Your task to perform on an android device: change keyboard looks Image 0: 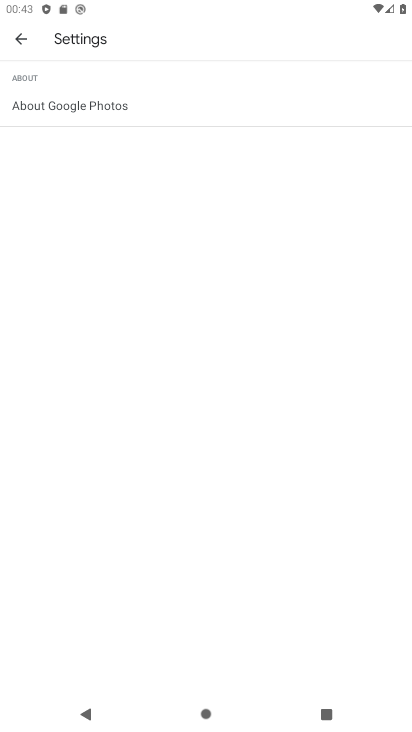
Step 0: press home button
Your task to perform on an android device: change keyboard looks Image 1: 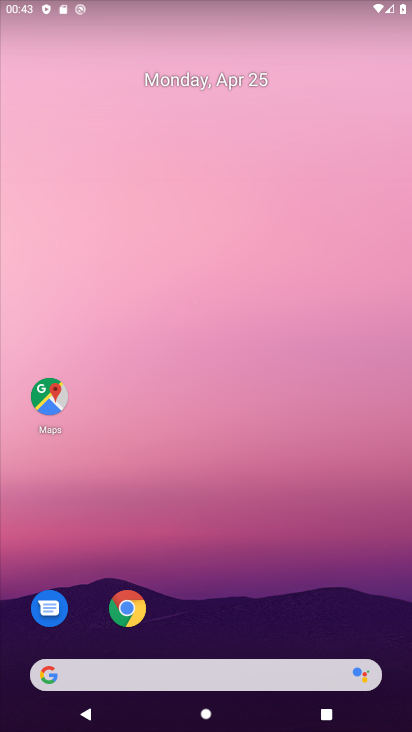
Step 1: drag from (240, 619) to (189, 96)
Your task to perform on an android device: change keyboard looks Image 2: 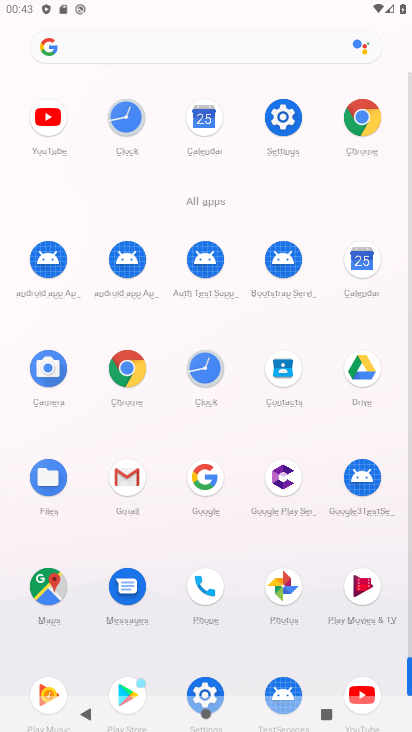
Step 2: click (292, 131)
Your task to perform on an android device: change keyboard looks Image 3: 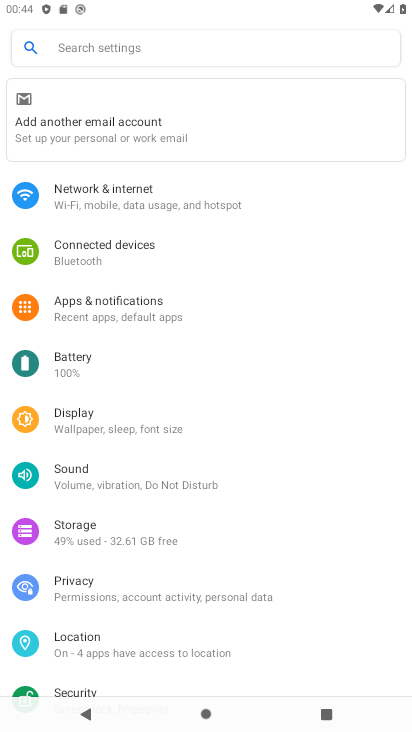
Step 3: drag from (189, 662) to (177, 148)
Your task to perform on an android device: change keyboard looks Image 4: 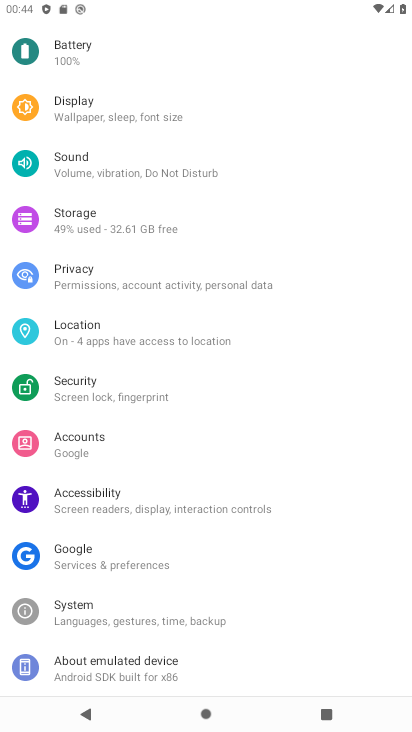
Step 4: drag from (220, 610) to (215, 162)
Your task to perform on an android device: change keyboard looks Image 5: 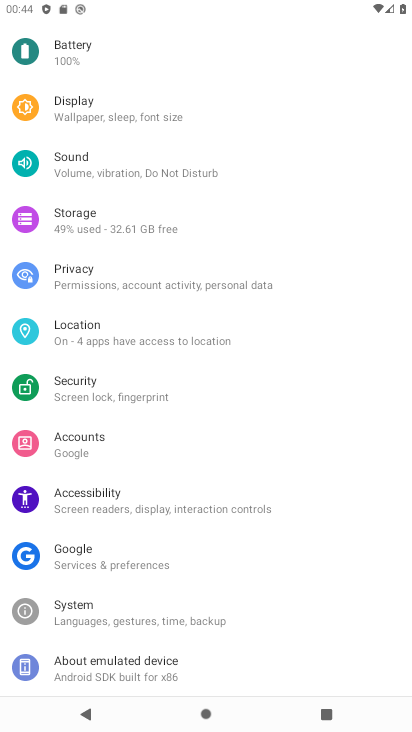
Step 5: click (178, 618)
Your task to perform on an android device: change keyboard looks Image 6: 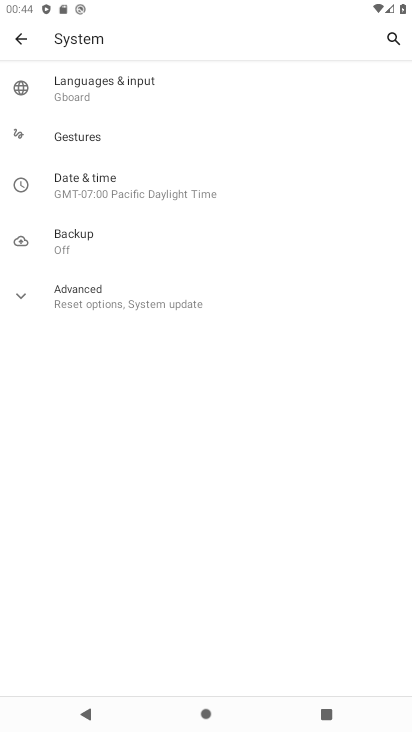
Step 6: click (196, 96)
Your task to perform on an android device: change keyboard looks Image 7: 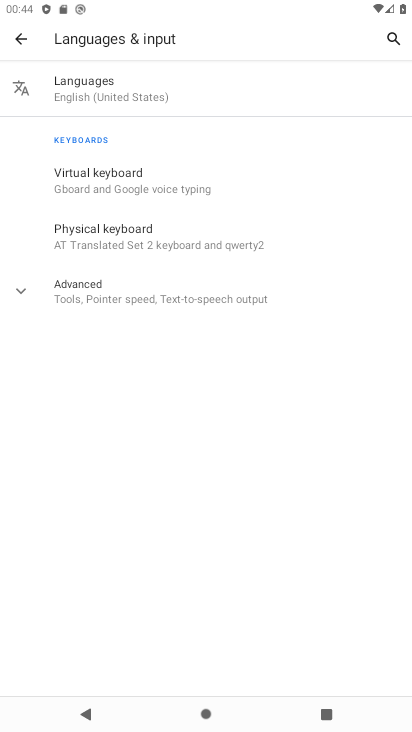
Step 7: click (217, 191)
Your task to perform on an android device: change keyboard looks Image 8: 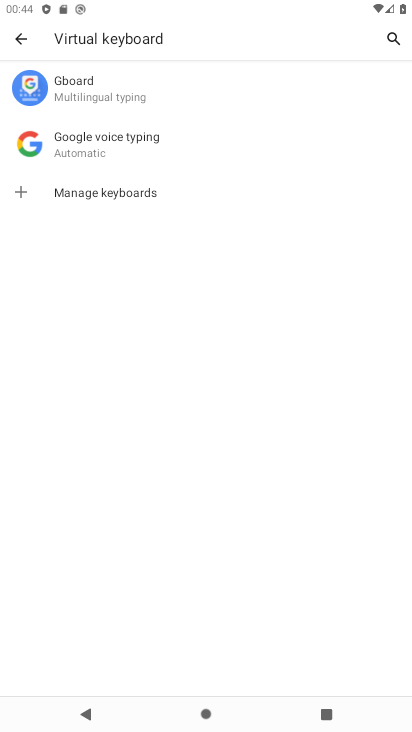
Step 8: click (178, 89)
Your task to perform on an android device: change keyboard looks Image 9: 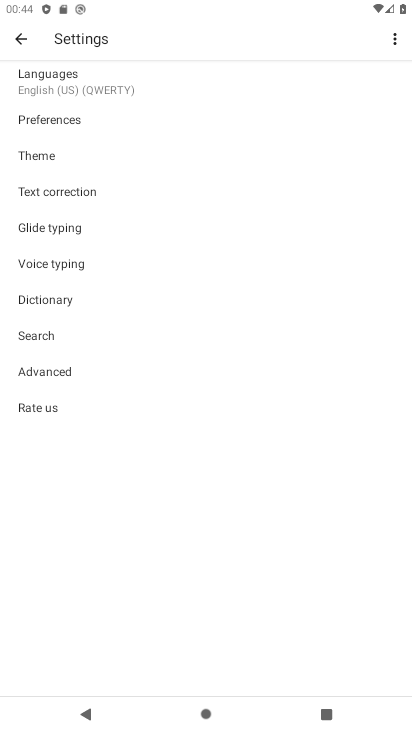
Step 9: click (133, 165)
Your task to perform on an android device: change keyboard looks Image 10: 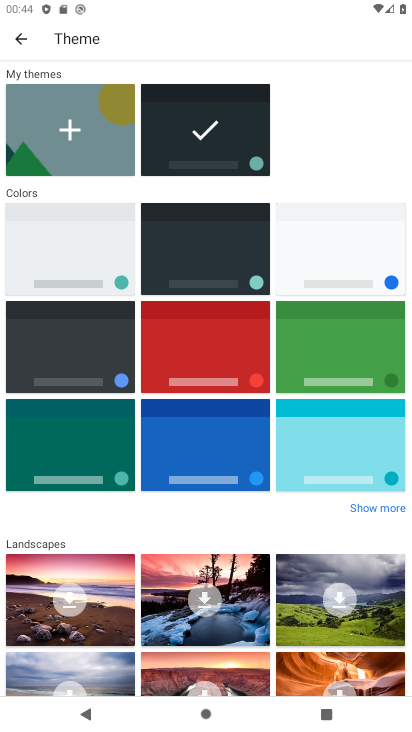
Step 10: click (181, 244)
Your task to perform on an android device: change keyboard looks Image 11: 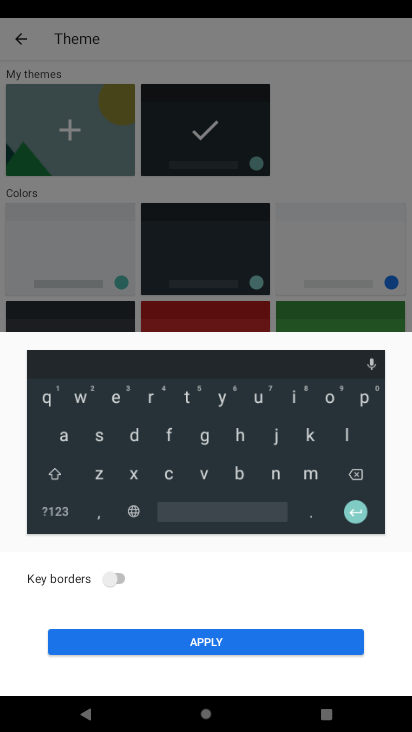
Step 11: click (235, 645)
Your task to perform on an android device: change keyboard looks Image 12: 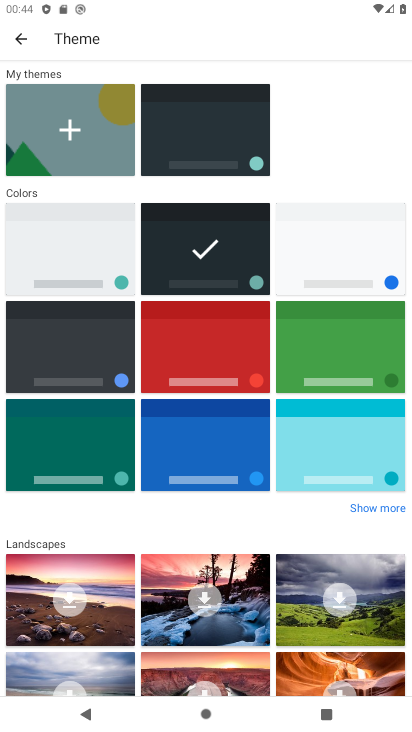
Step 12: task complete